Your task to perform on an android device: change notifications settings Image 0: 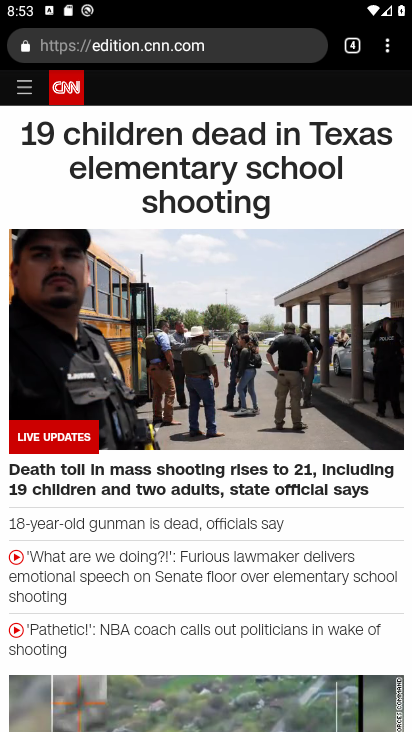
Step 0: press home button
Your task to perform on an android device: change notifications settings Image 1: 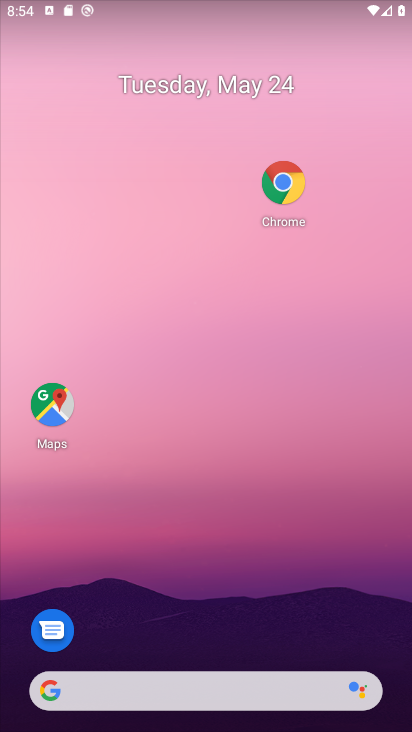
Step 1: drag from (220, 64) to (203, 9)
Your task to perform on an android device: change notifications settings Image 2: 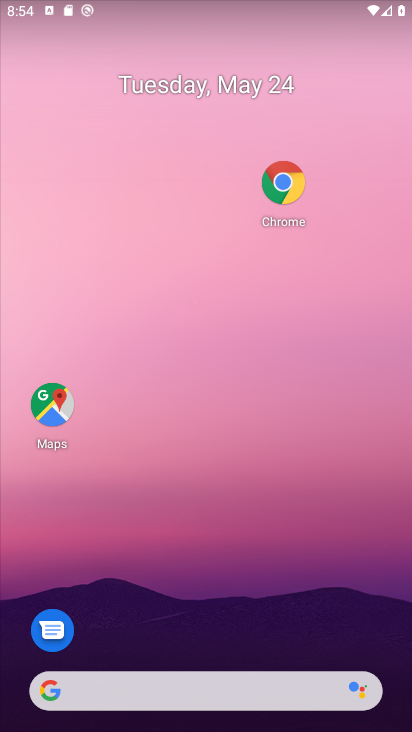
Step 2: drag from (179, 710) to (200, 85)
Your task to perform on an android device: change notifications settings Image 3: 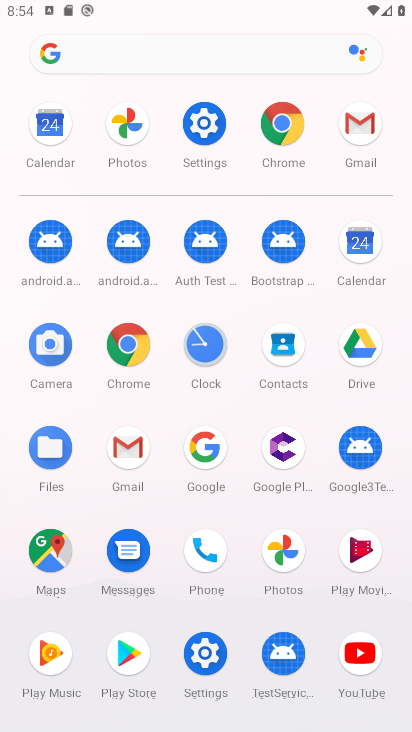
Step 3: click (206, 132)
Your task to perform on an android device: change notifications settings Image 4: 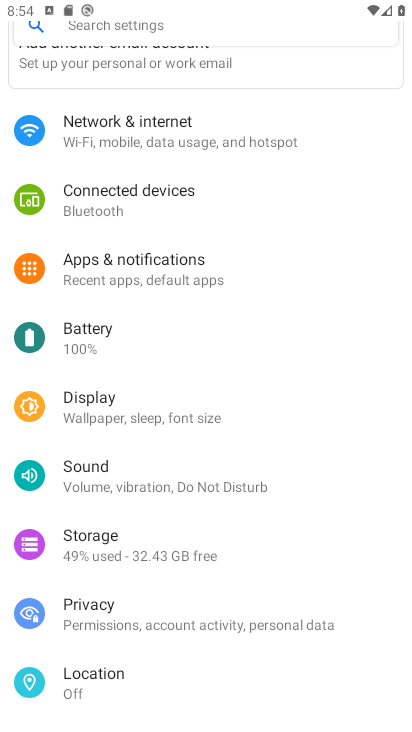
Step 4: click (152, 28)
Your task to perform on an android device: change notifications settings Image 5: 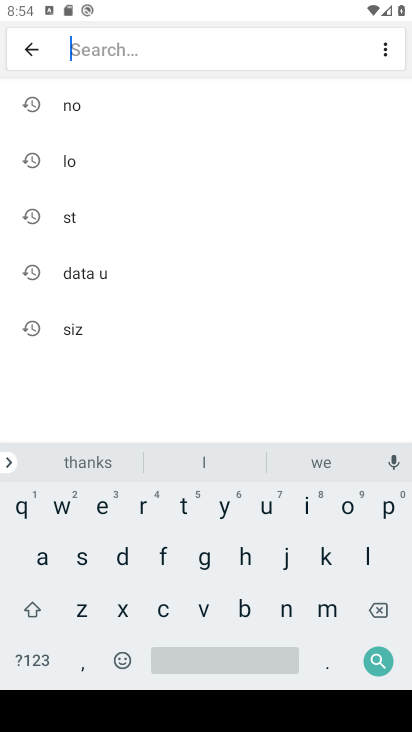
Step 5: click (287, 611)
Your task to perform on an android device: change notifications settings Image 6: 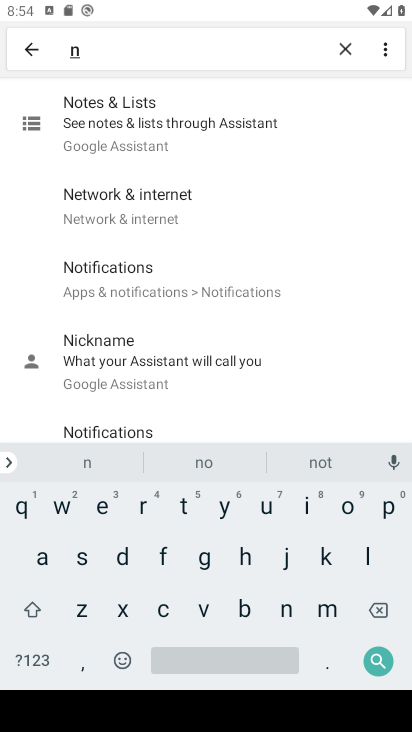
Step 6: click (346, 509)
Your task to perform on an android device: change notifications settings Image 7: 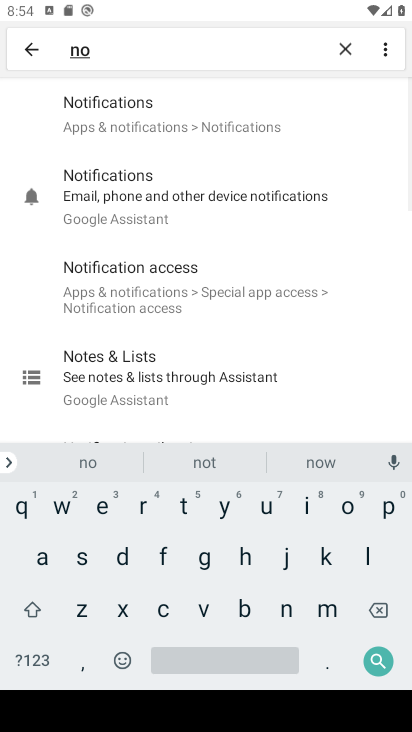
Step 7: click (150, 125)
Your task to perform on an android device: change notifications settings Image 8: 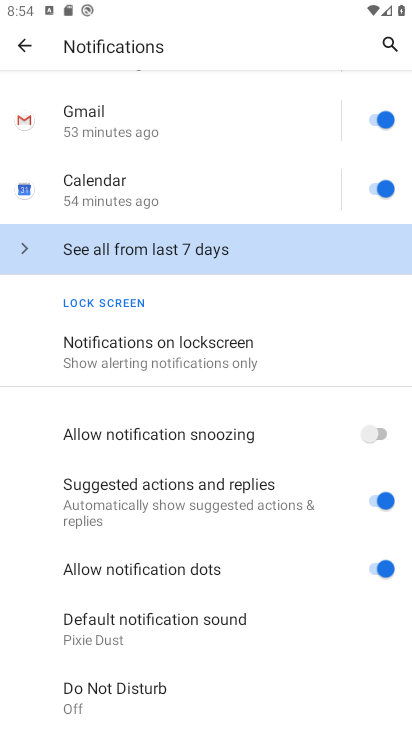
Step 8: click (139, 351)
Your task to perform on an android device: change notifications settings Image 9: 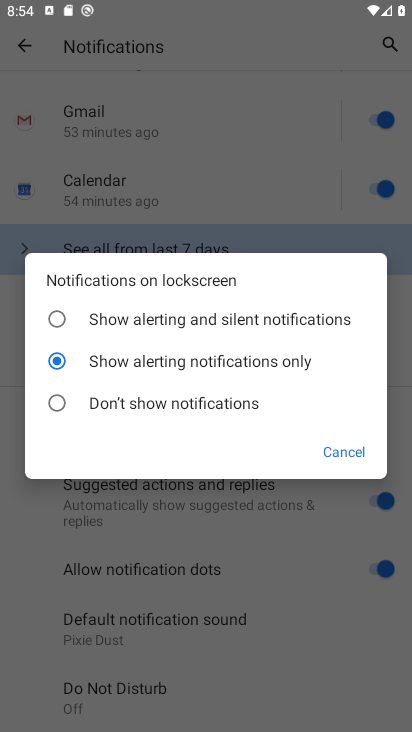
Step 9: click (183, 322)
Your task to perform on an android device: change notifications settings Image 10: 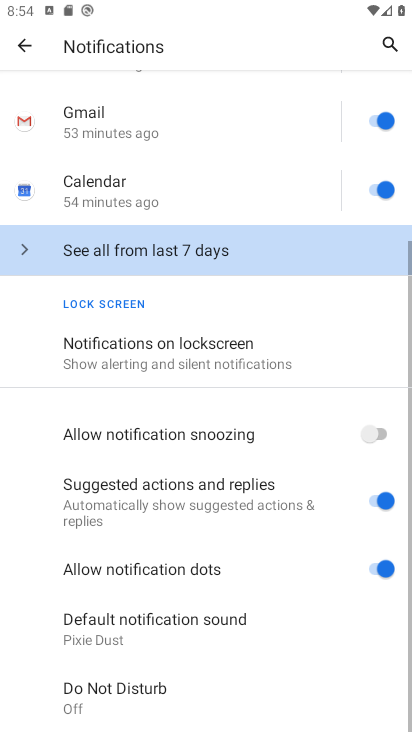
Step 10: task complete